Your task to perform on an android device: turn off picture-in-picture Image 0: 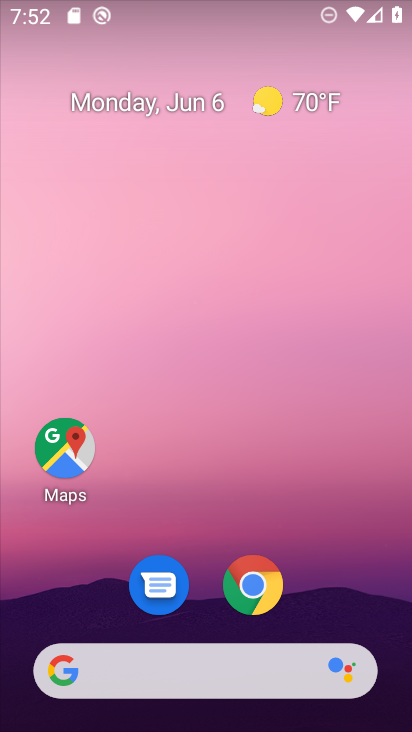
Step 0: click (251, 585)
Your task to perform on an android device: turn off picture-in-picture Image 1: 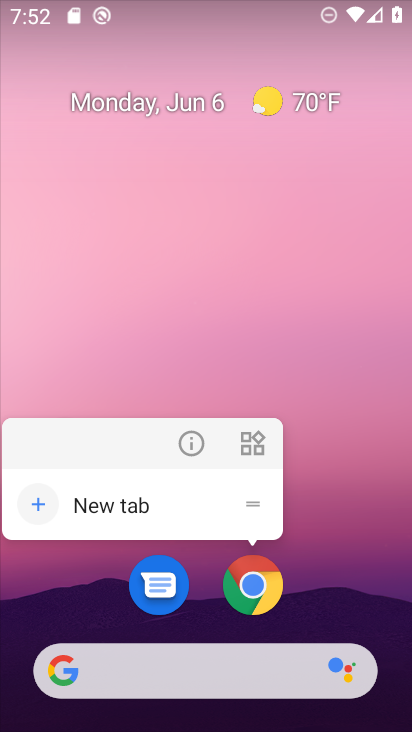
Step 1: click (199, 440)
Your task to perform on an android device: turn off picture-in-picture Image 2: 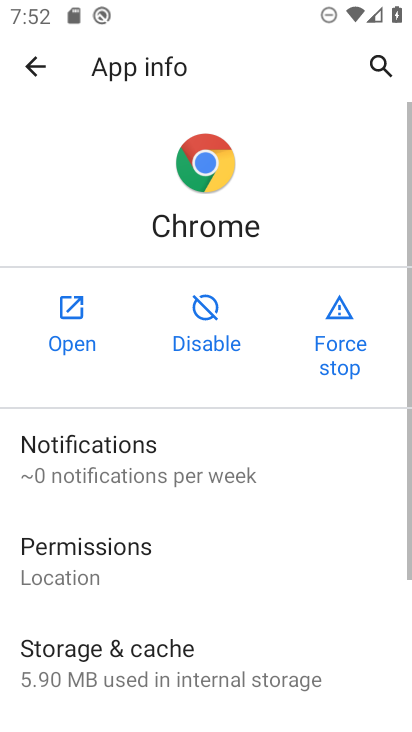
Step 2: drag from (122, 640) to (150, 275)
Your task to perform on an android device: turn off picture-in-picture Image 3: 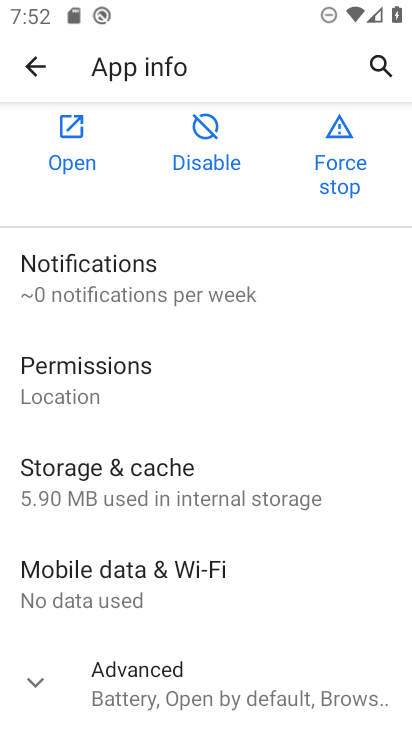
Step 3: click (24, 677)
Your task to perform on an android device: turn off picture-in-picture Image 4: 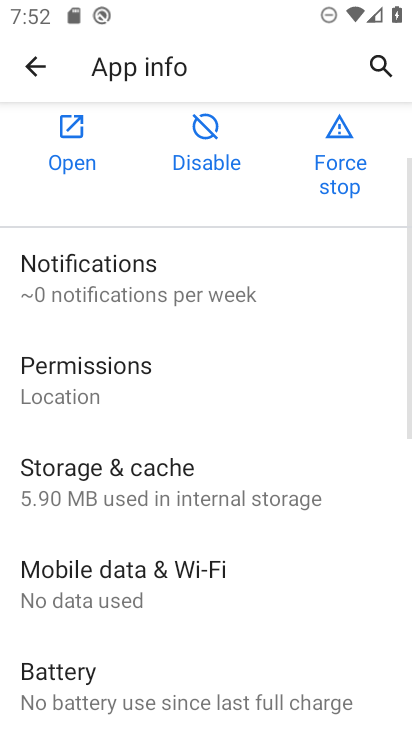
Step 4: drag from (178, 623) to (268, 222)
Your task to perform on an android device: turn off picture-in-picture Image 5: 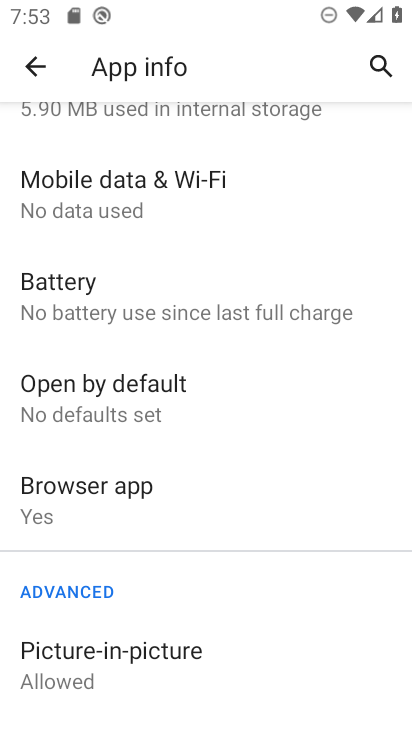
Step 5: drag from (195, 555) to (204, 379)
Your task to perform on an android device: turn off picture-in-picture Image 6: 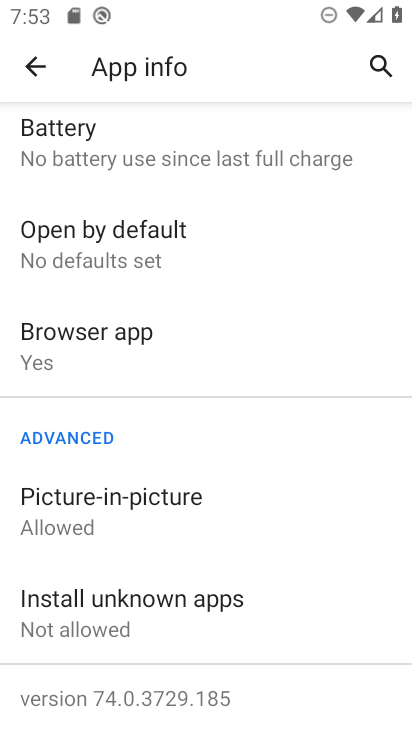
Step 6: click (172, 505)
Your task to perform on an android device: turn off picture-in-picture Image 7: 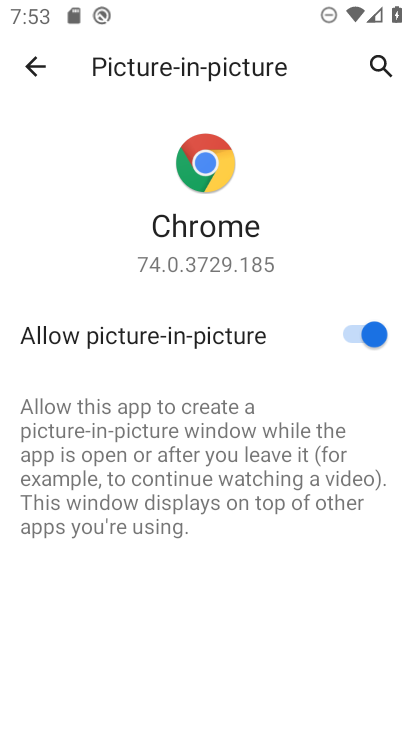
Step 7: click (358, 328)
Your task to perform on an android device: turn off picture-in-picture Image 8: 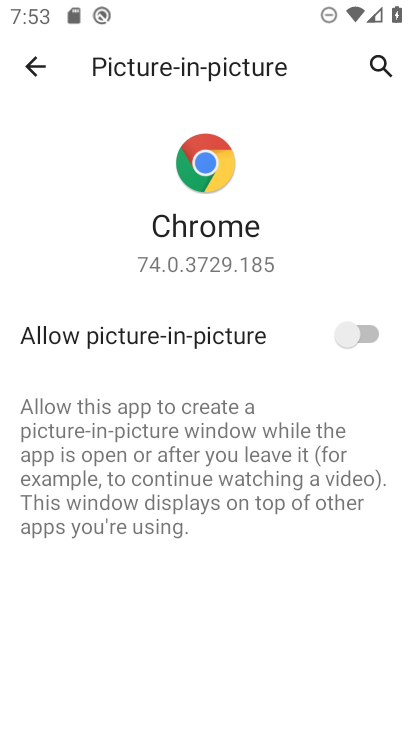
Step 8: task complete